Your task to perform on an android device: Search for seafood restaurants on Google Maps Image 0: 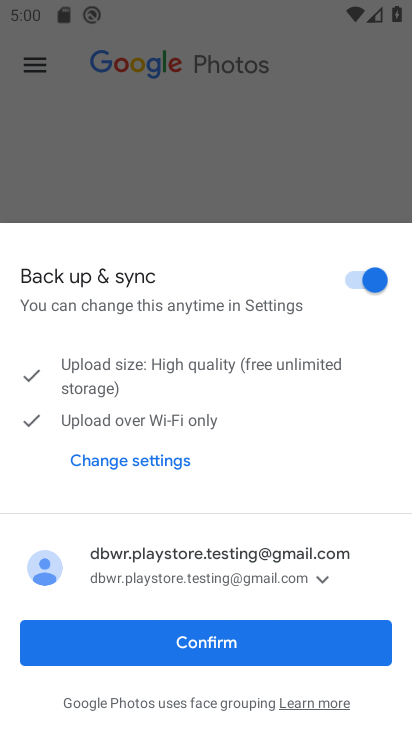
Step 0: press home button
Your task to perform on an android device: Search for seafood restaurants on Google Maps Image 1: 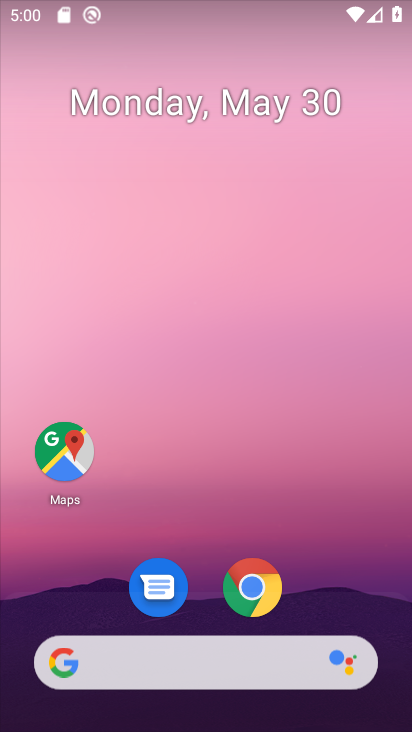
Step 1: click (63, 451)
Your task to perform on an android device: Search for seafood restaurants on Google Maps Image 2: 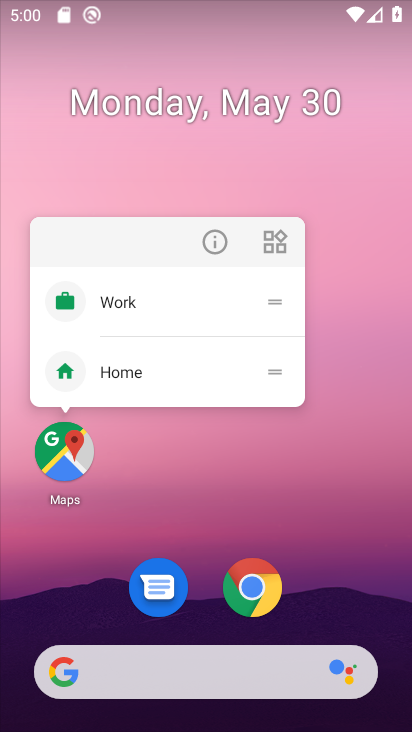
Step 2: click (63, 451)
Your task to perform on an android device: Search for seafood restaurants on Google Maps Image 3: 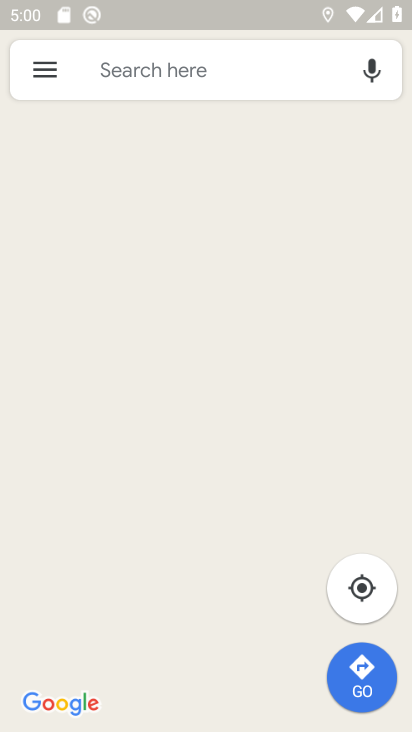
Step 3: click (210, 75)
Your task to perform on an android device: Search for seafood restaurants on Google Maps Image 4: 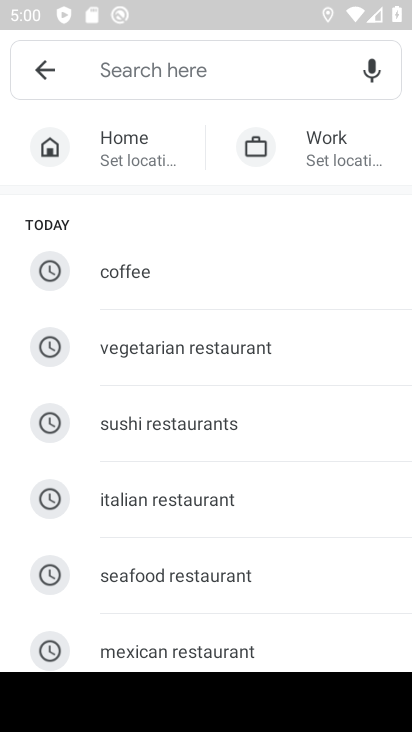
Step 4: type "seafood restaurants"
Your task to perform on an android device: Search for seafood restaurants on Google Maps Image 5: 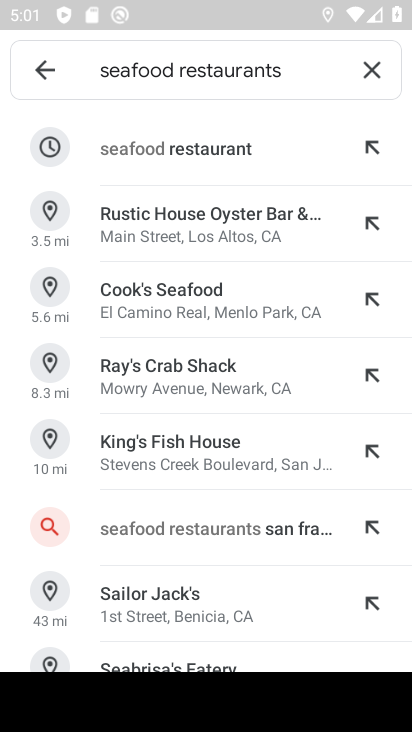
Step 5: click (183, 160)
Your task to perform on an android device: Search for seafood restaurants on Google Maps Image 6: 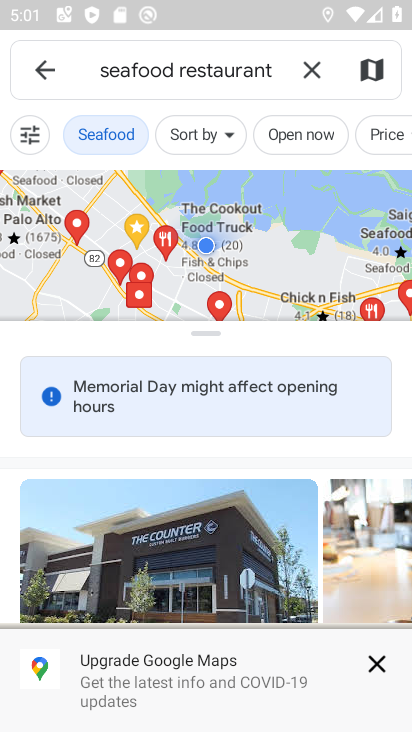
Step 6: task complete